Your task to perform on an android device: create a new album in the google photos Image 0: 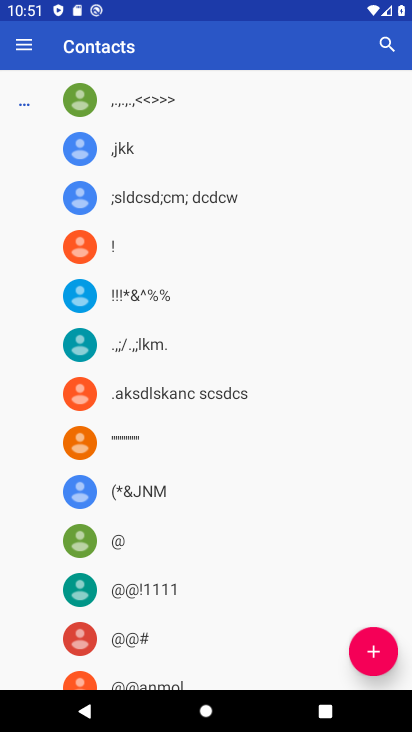
Step 0: press back button
Your task to perform on an android device: create a new album in the google photos Image 1: 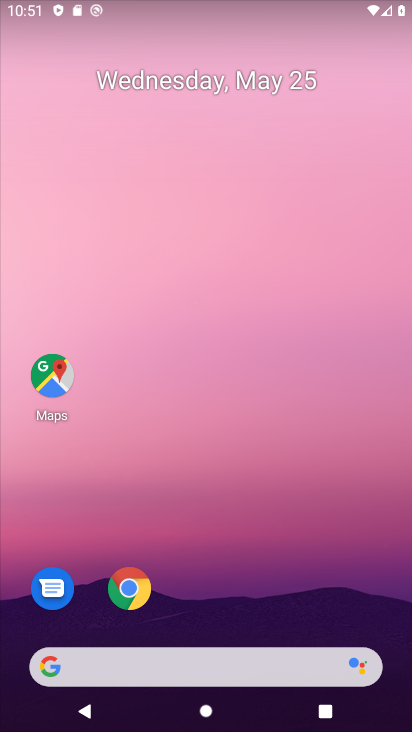
Step 1: drag from (248, 570) to (178, 91)
Your task to perform on an android device: create a new album in the google photos Image 2: 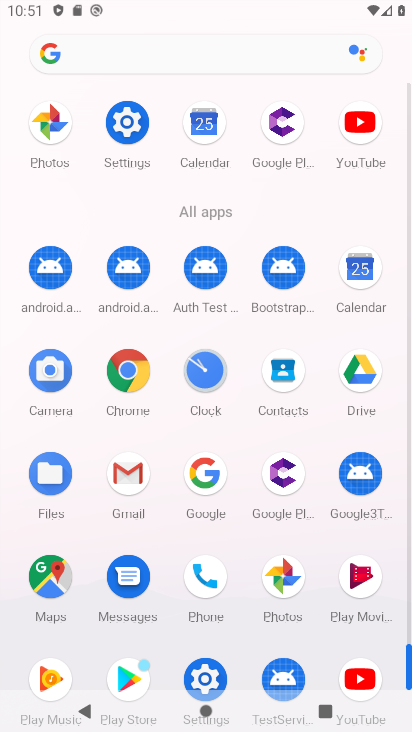
Step 2: click (51, 123)
Your task to perform on an android device: create a new album in the google photos Image 3: 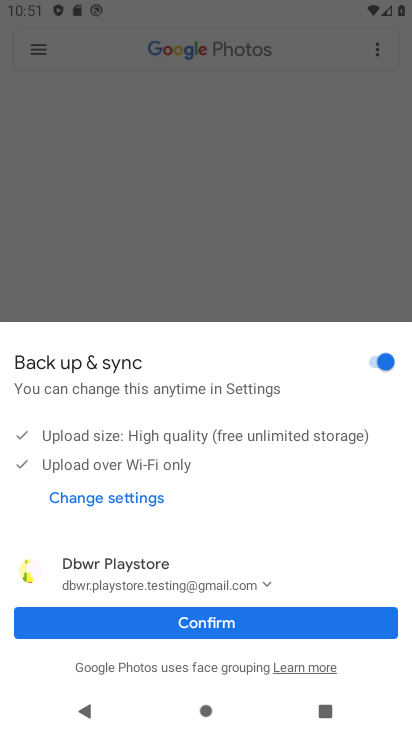
Step 3: click (226, 621)
Your task to perform on an android device: create a new album in the google photos Image 4: 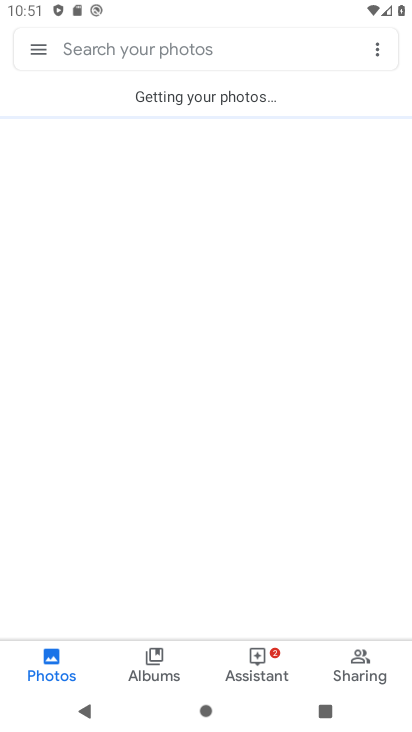
Step 4: click (379, 46)
Your task to perform on an android device: create a new album in the google photos Image 5: 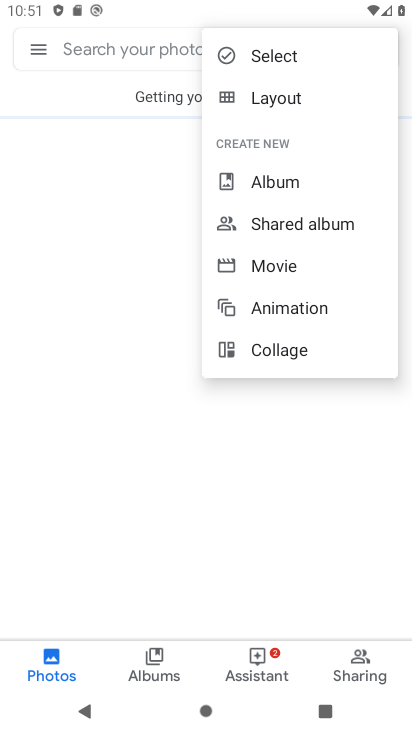
Step 5: click (266, 182)
Your task to perform on an android device: create a new album in the google photos Image 6: 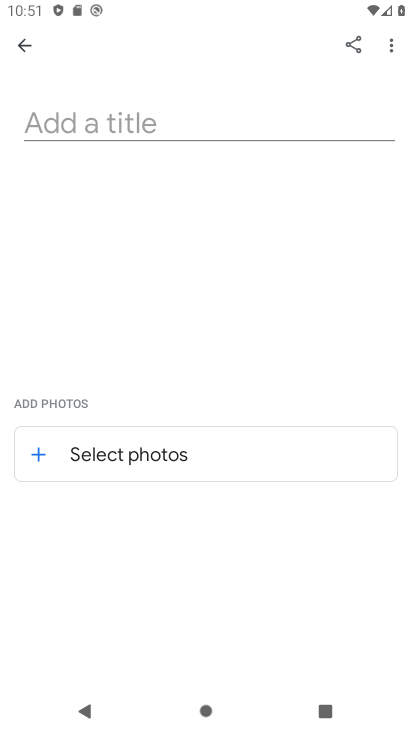
Step 6: click (271, 129)
Your task to perform on an android device: create a new album in the google photos Image 7: 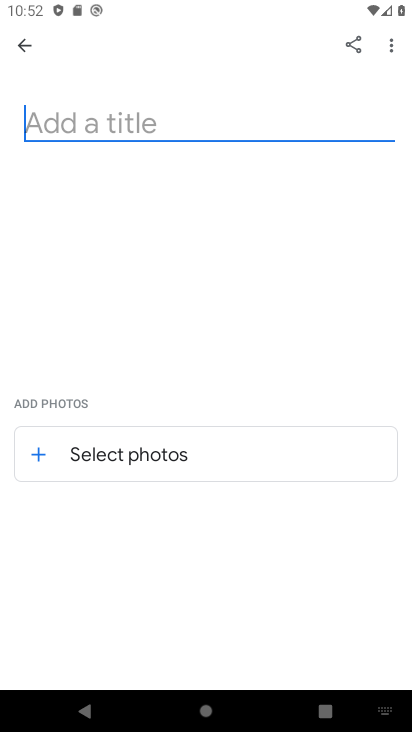
Step 7: type "cc2c"
Your task to perform on an android device: create a new album in the google photos Image 8: 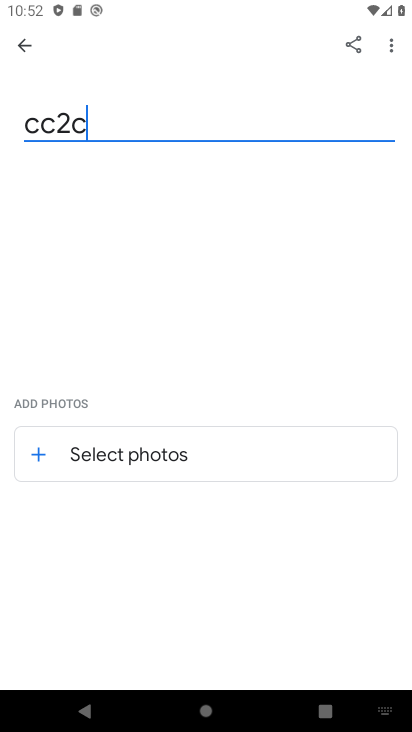
Step 8: click (37, 452)
Your task to perform on an android device: create a new album in the google photos Image 9: 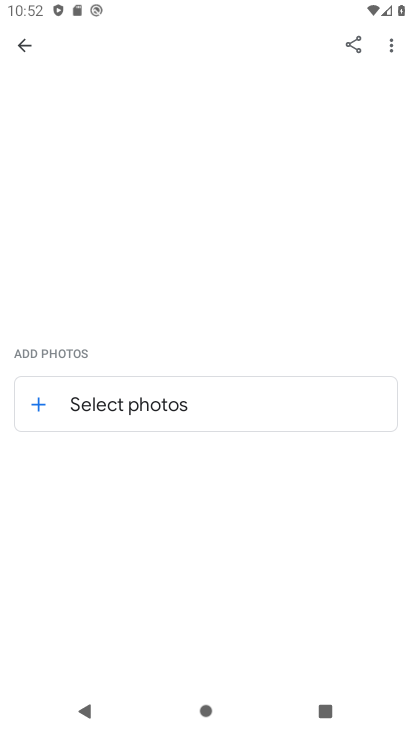
Step 9: click (37, 400)
Your task to perform on an android device: create a new album in the google photos Image 10: 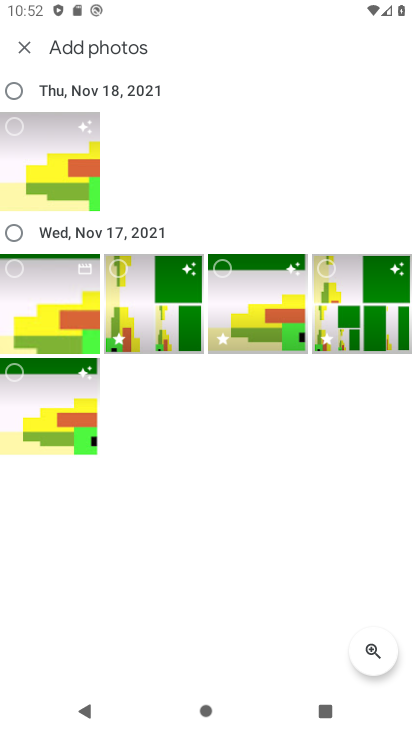
Step 10: click (14, 94)
Your task to perform on an android device: create a new album in the google photos Image 11: 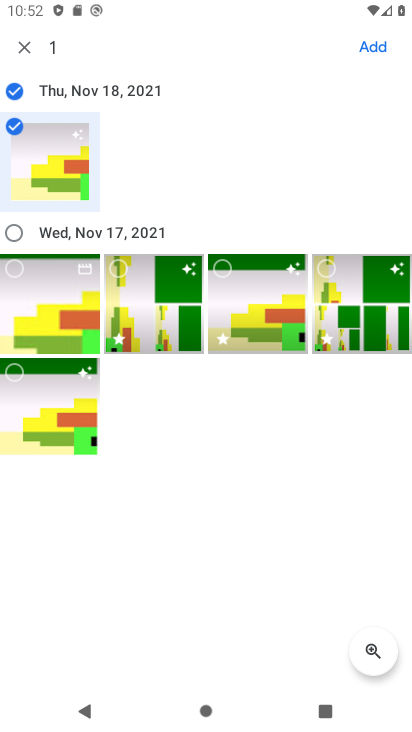
Step 11: click (375, 47)
Your task to perform on an android device: create a new album in the google photos Image 12: 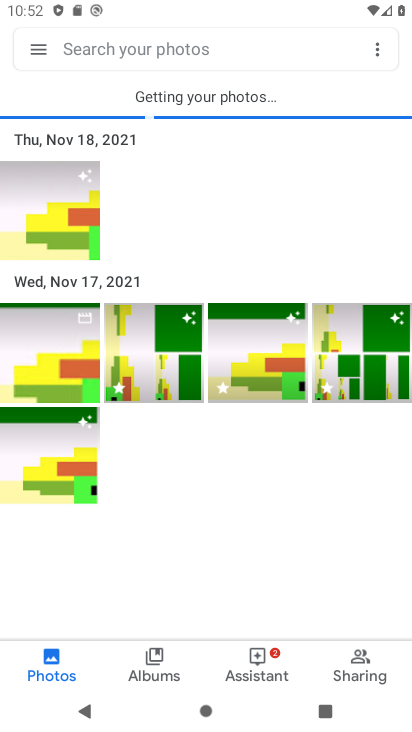
Step 12: task complete